Your task to perform on an android device: change timer sound Image 0: 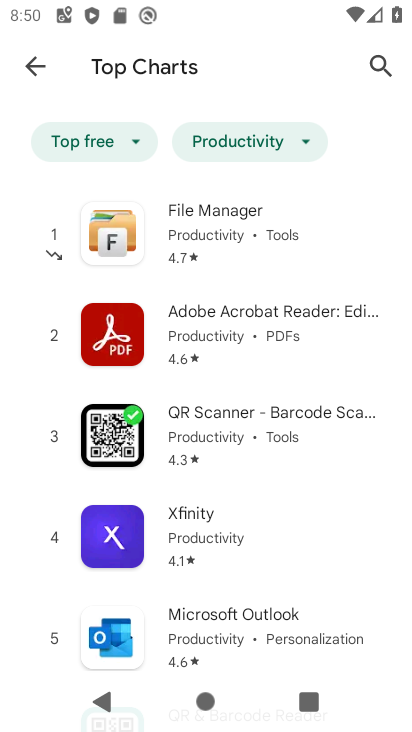
Step 0: press home button
Your task to perform on an android device: change timer sound Image 1: 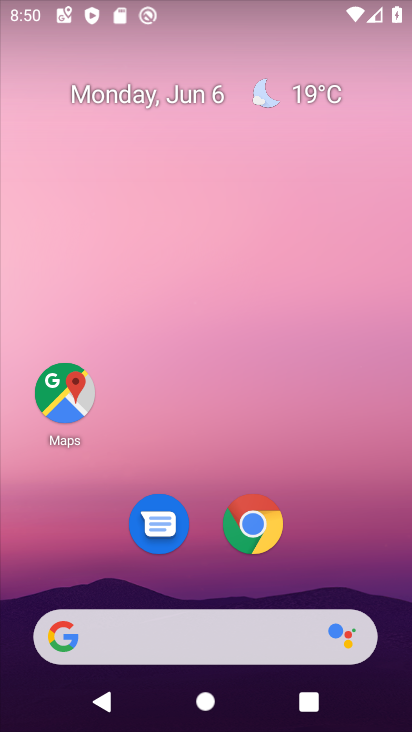
Step 1: drag from (307, 537) to (313, 45)
Your task to perform on an android device: change timer sound Image 2: 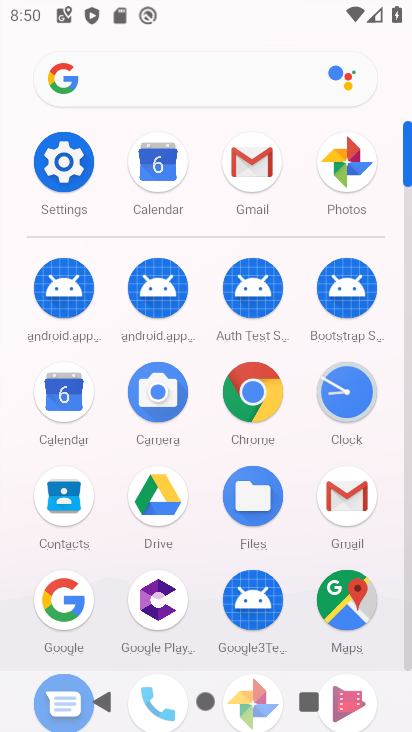
Step 2: click (350, 398)
Your task to perform on an android device: change timer sound Image 3: 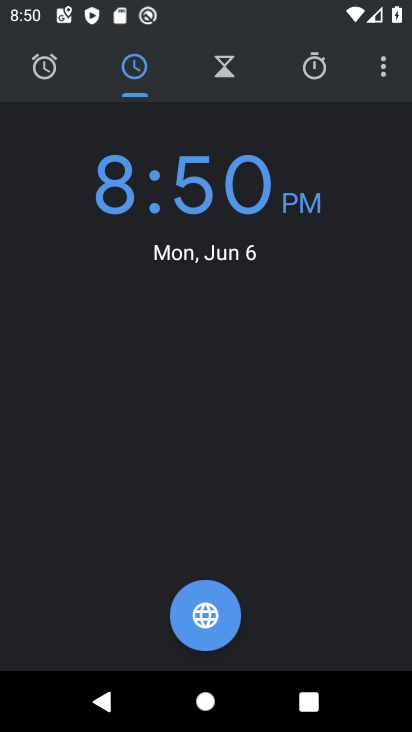
Step 3: click (383, 70)
Your task to perform on an android device: change timer sound Image 4: 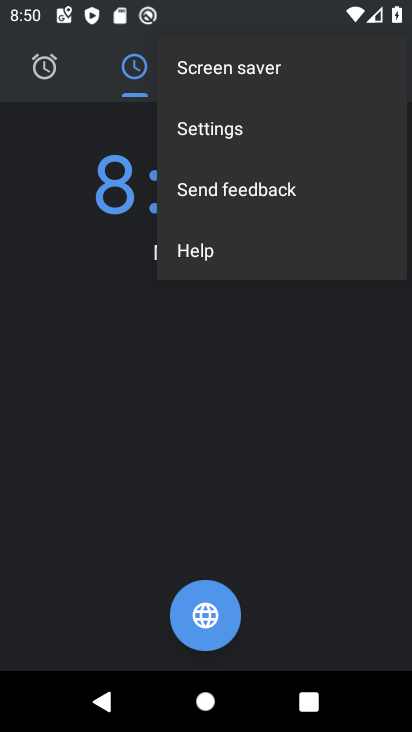
Step 4: click (295, 136)
Your task to perform on an android device: change timer sound Image 5: 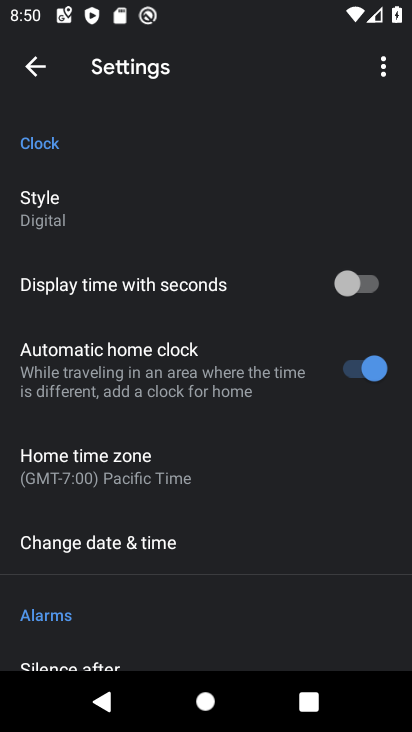
Step 5: drag from (237, 463) to (221, 70)
Your task to perform on an android device: change timer sound Image 6: 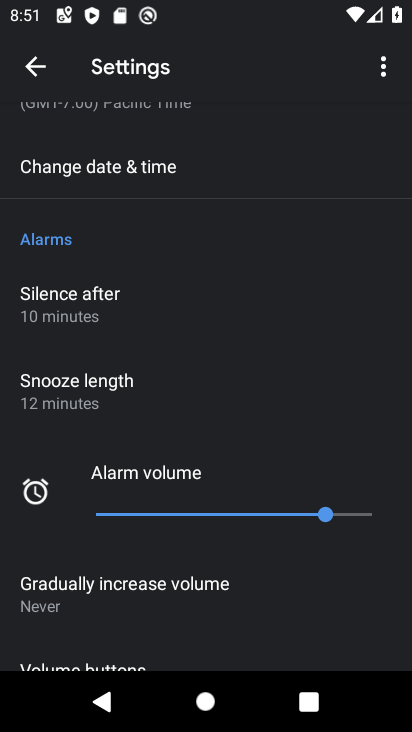
Step 6: drag from (235, 356) to (250, 148)
Your task to perform on an android device: change timer sound Image 7: 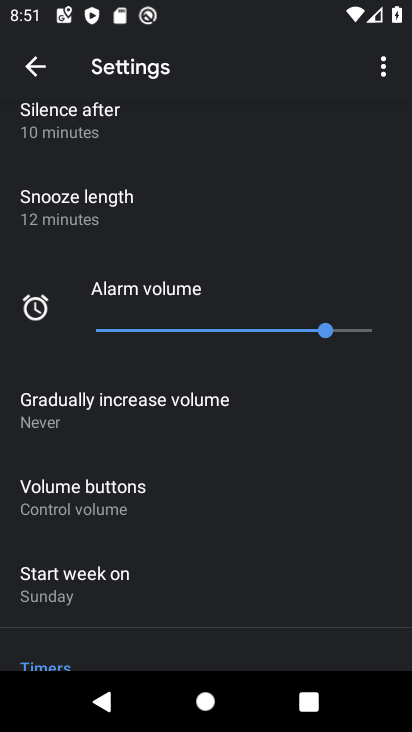
Step 7: drag from (204, 460) to (185, 130)
Your task to perform on an android device: change timer sound Image 8: 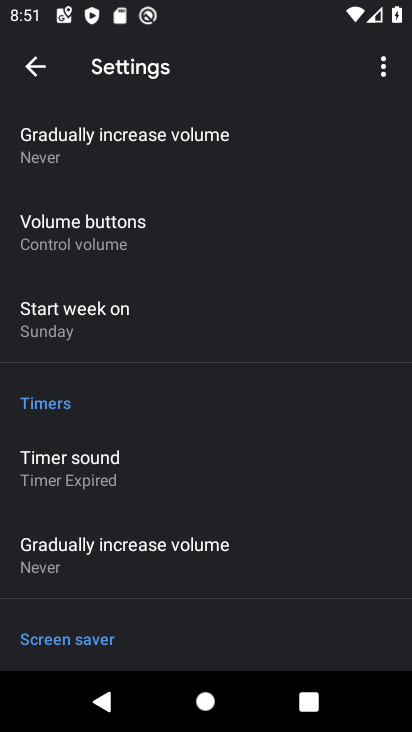
Step 8: click (130, 468)
Your task to perform on an android device: change timer sound Image 9: 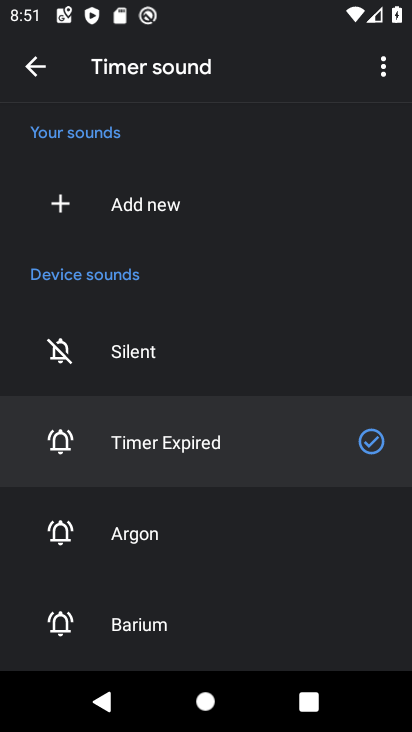
Step 9: click (127, 521)
Your task to perform on an android device: change timer sound Image 10: 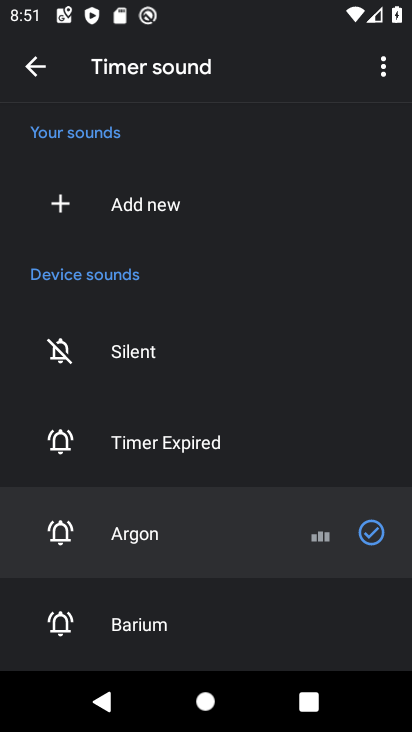
Step 10: task complete